Your task to perform on an android device: remove spam from my inbox in the gmail app Image 0: 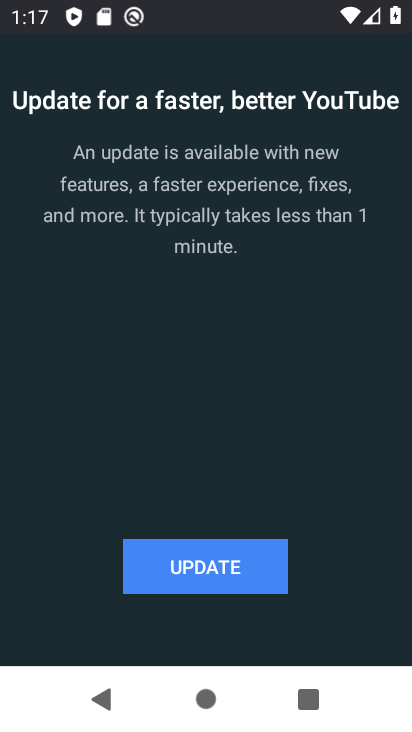
Step 0: press back button
Your task to perform on an android device: remove spam from my inbox in the gmail app Image 1: 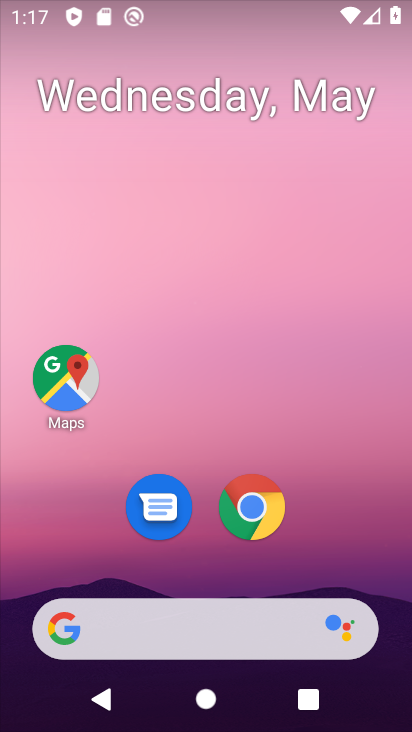
Step 1: drag from (397, 626) to (179, 21)
Your task to perform on an android device: remove spam from my inbox in the gmail app Image 2: 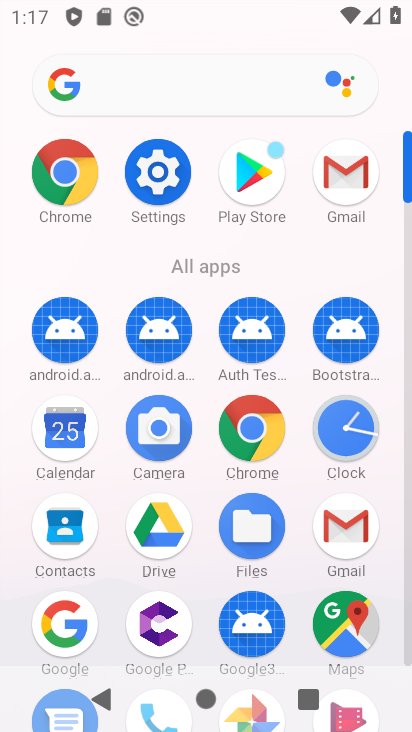
Step 2: click (344, 185)
Your task to perform on an android device: remove spam from my inbox in the gmail app Image 3: 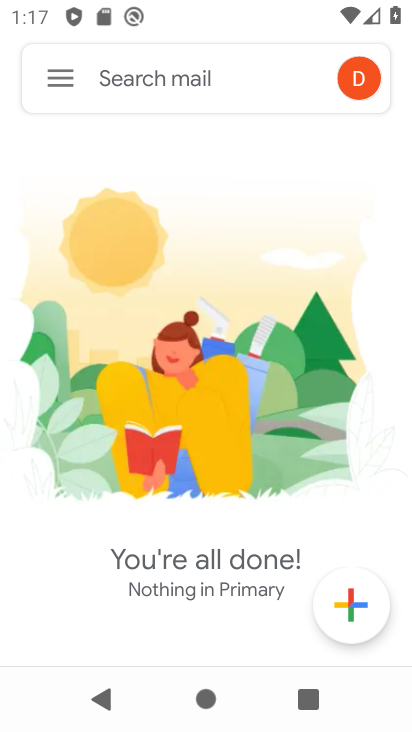
Step 3: click (69, 84)
Your task to perform on an android device: remove spam from my inbox in the gmail app Image 4: 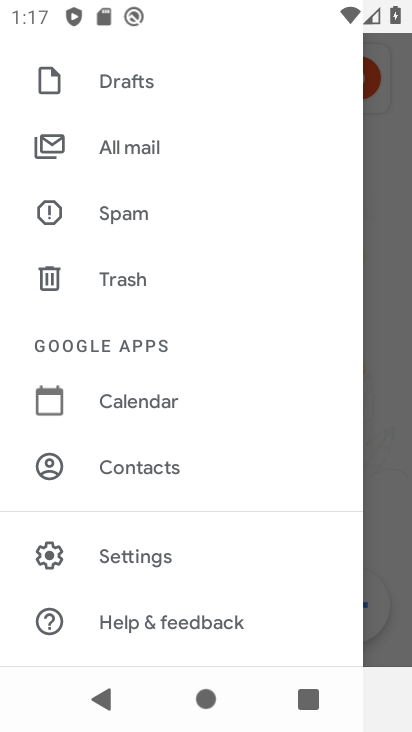
Step 4: click (153, 220)
Your task to perform on an android device: remove spam from my inbox in the gmail app Image 5: 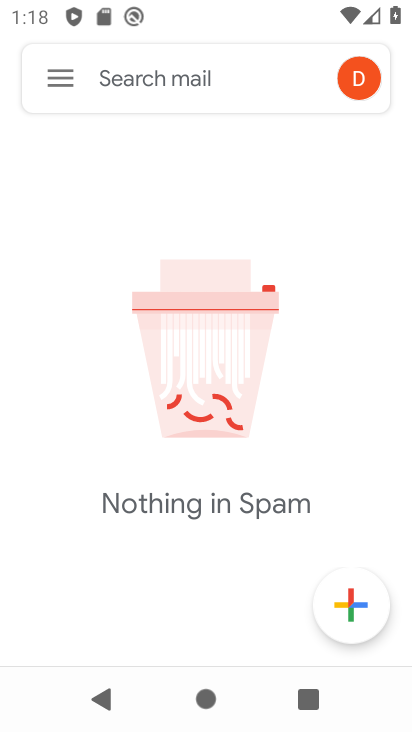
Step 5: task complete